Your task to perform on an android device: toggle improve location accuracy Image 0: 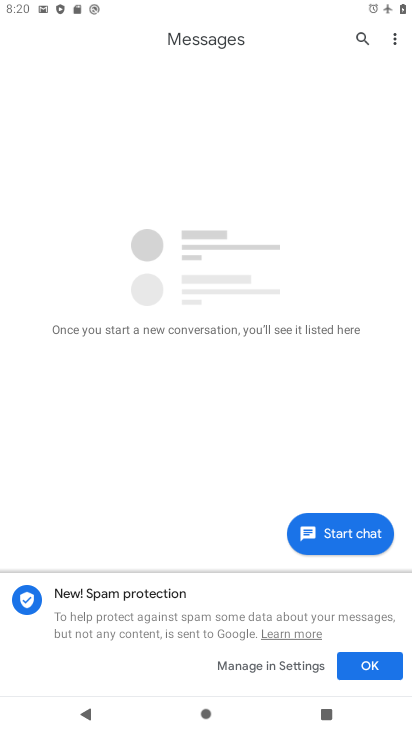
Step 0: press home button
Your task to perform on an android device: toggle improve location accuracy Image 1: 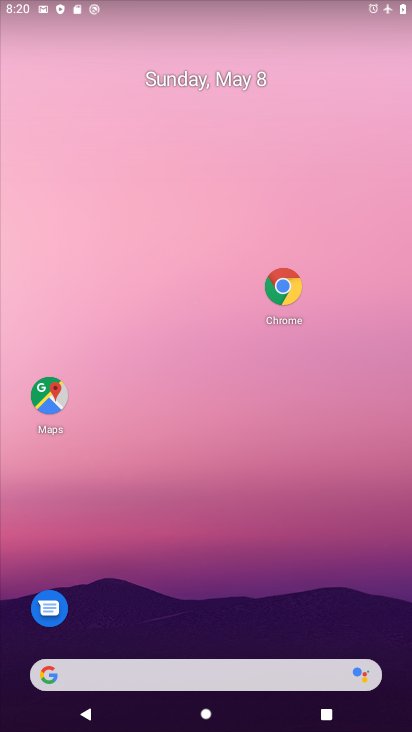
Step 1: drag from (187, 678) to (317, 154)
Your task to perform on an android device: toggle improve location accuracy Image 2: 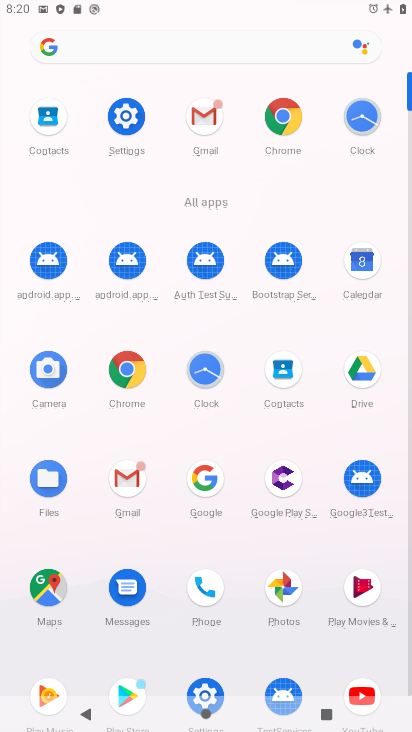
Step 2: click (127, 121)
Your task to perform on an android device: toggle improve location accuracy Image 3: 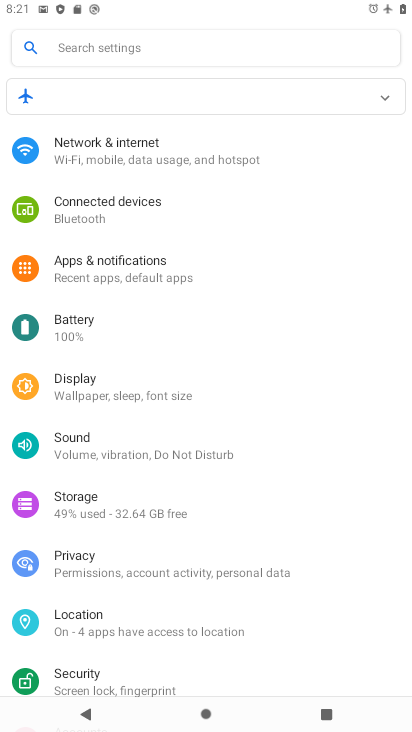
Step 3: click (105, 626)
Your task to perform on an android device: toggle improve location accuracy Image 4: 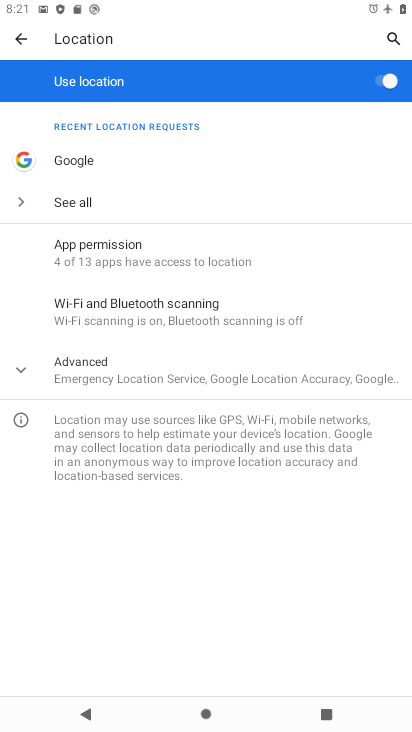
Step 4: click (95, 364)
Your task to perform on an android device: toggle improve location accuracy Image 5: 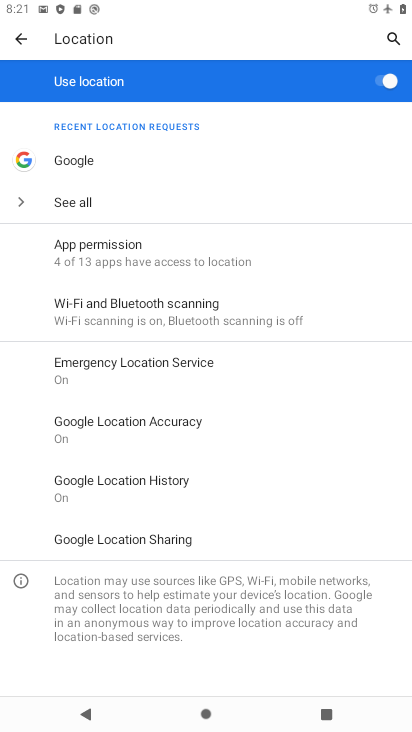
Step 5: click (155, 427)
Your task to perform on an android device: toggle improve location accuracy Image 6: 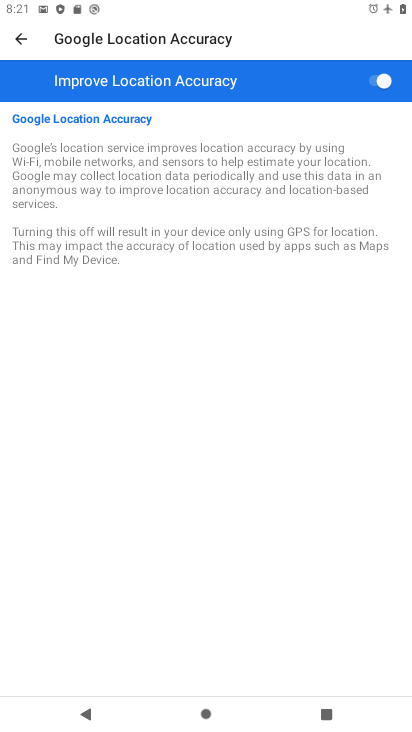
Step 6: click (373, 84)
Your task to perform on an android device: toggle improve location accuracy Image 7: 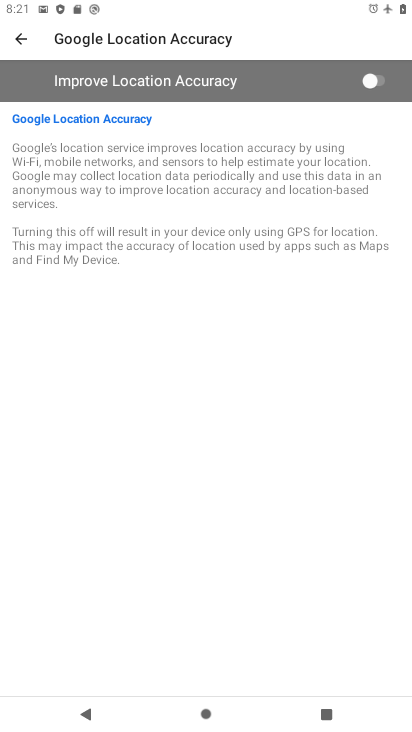
Step 7: task complete